Your task to perform on an android device: turn off airplane mode Image 0: 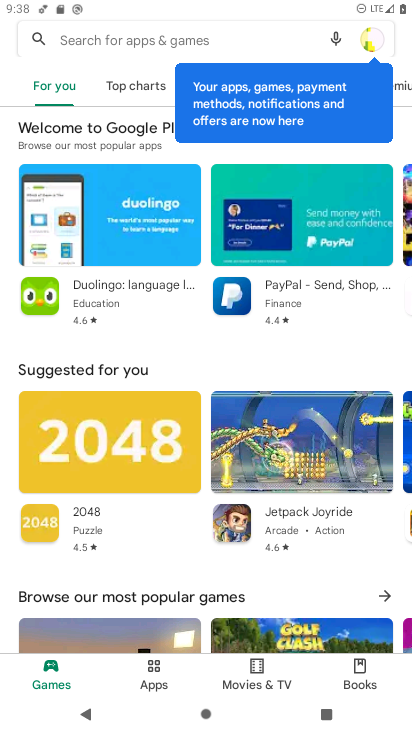
Step 0: press home button
Your task to perform on an android device: turn off airplane mode Image 1: 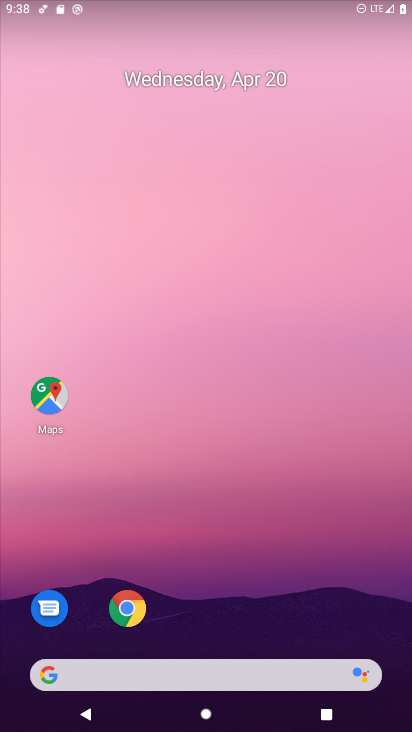
Step 1: drag from (152, 523) to (264, 11)
Your task to perform on an android device: turn off airplane mode Image 2: 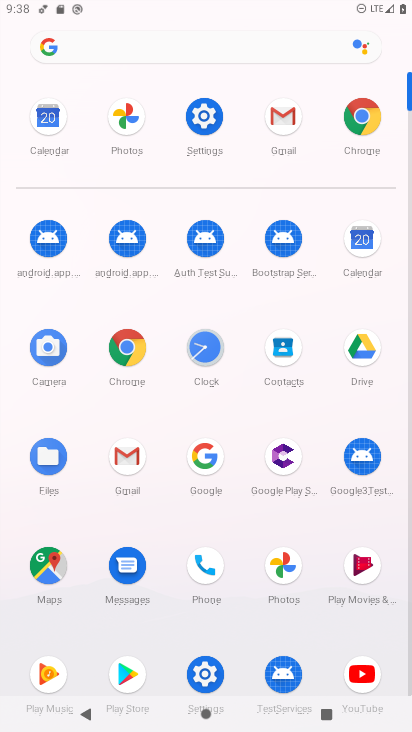
Step 2: click (202, 105)
Your task to perform on an android device: turn off airplane mode Image 3: 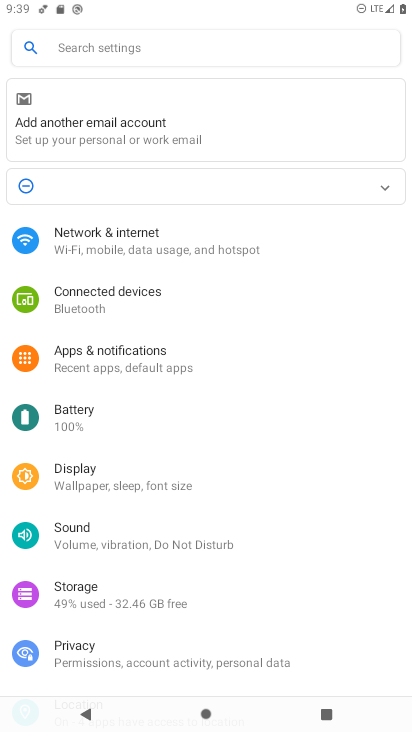
Step 3: click (137, 250)
Your task to perform on an android device: turn off airplane mode Image 4: 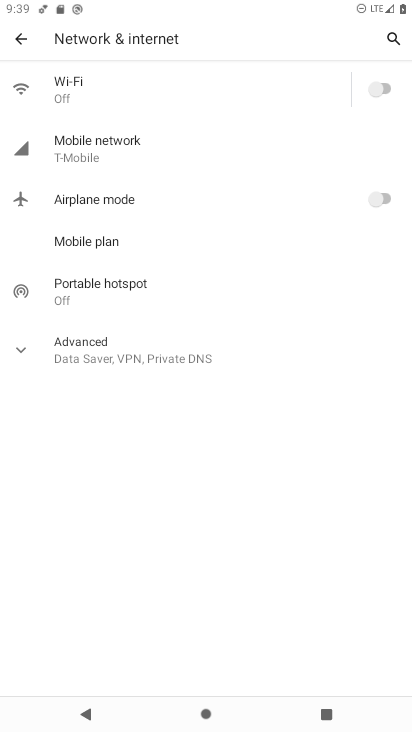
Step 4: task complete